Your task to perform on an android device: turn on bluetooth scan Image 0: 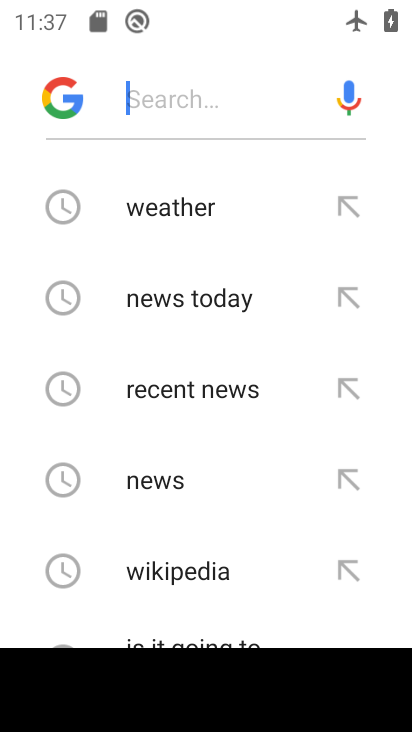
Step 0: press home button
Your task to perform on an android device: turn on bluetooth scan Image 1: 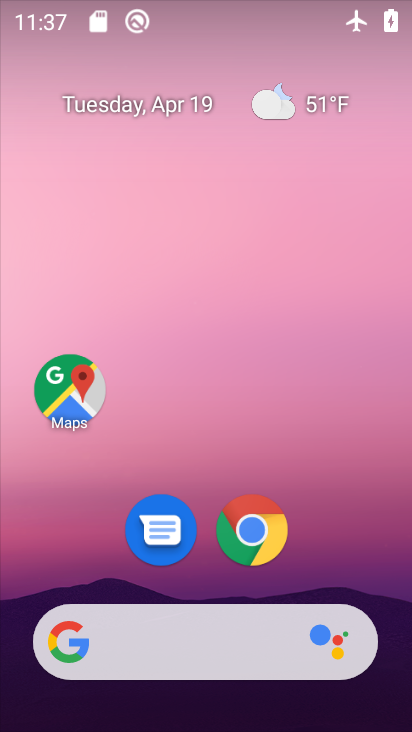
Step 1: drag from (164, 655) to (301, 61)
Your task to perform on an android device: turn on bluetooth scan Image 2: 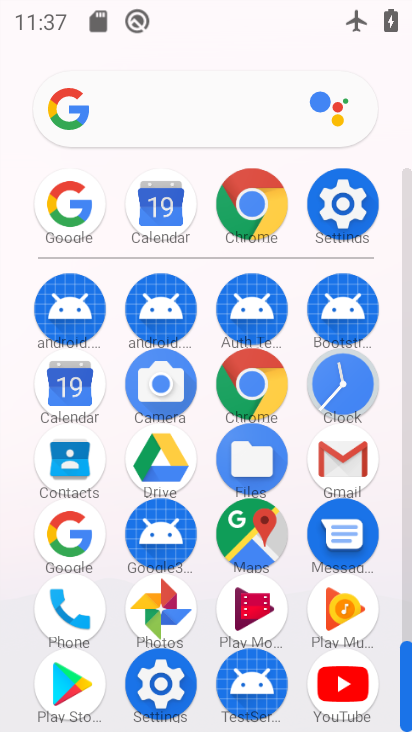
Step 2: click (337, 218)
Your task to perform on an android device: turn on bluetooth scan Image 3: 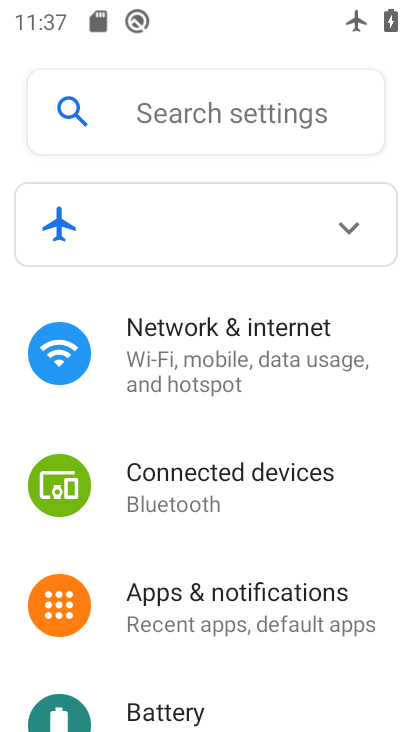
Step 3: drag from (185, 667) to (329, 238)
Your task to perform on an android device: turn on bluetooth scan Image 4: 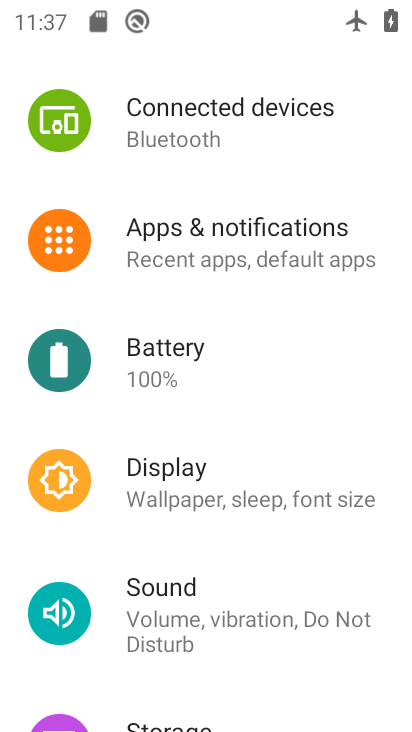
Step 4: drag from (247, 677) to (383, 87)
Your task to perform on an android device: turn on bluetooth scan Image 5: 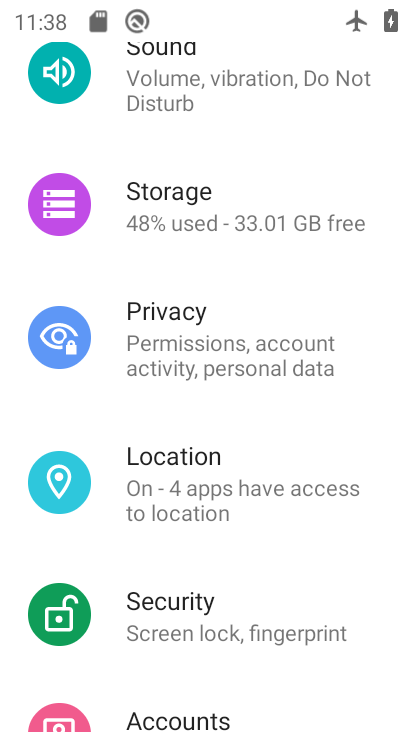
Step 5: click (219, 461)
Your task to perform on an android device: turn on bluetooth scan Image 6: 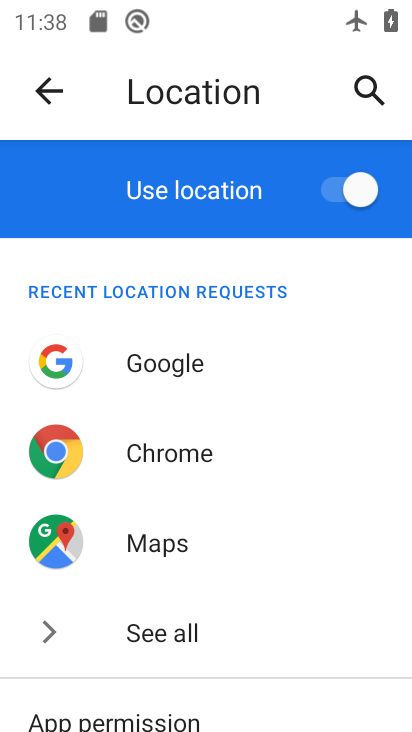
Step 6: drag from (253, 548) to (371, 212)
Your task to perform on an android device: turn on bluetooth scan Image 7: 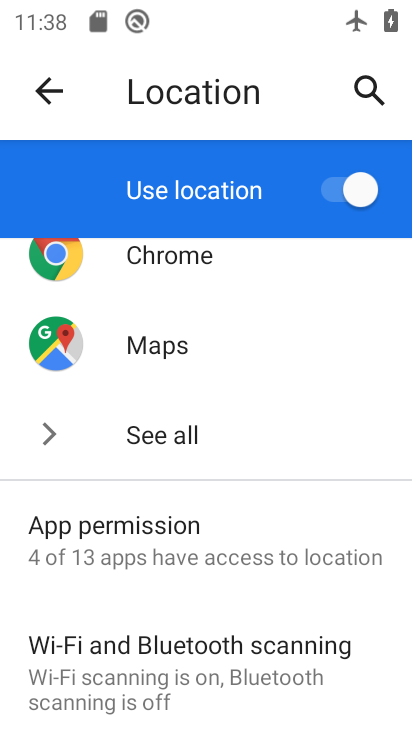
Step 7: drag from (183, 607) to (371, 104)
Your task to perform on an android device: turn on bluetooth scan Image 8: 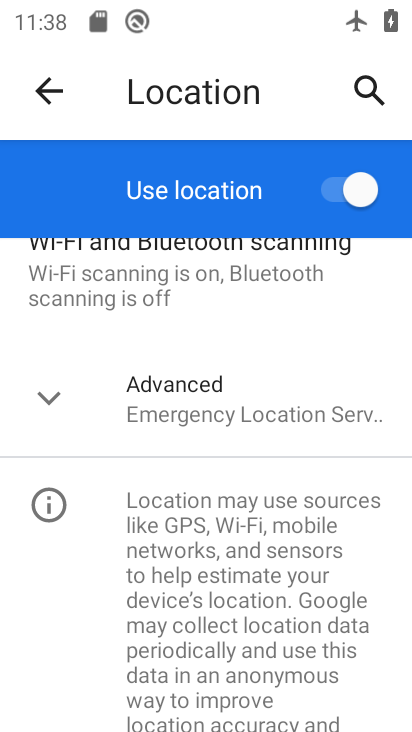
Step 8: click (259, 263)
Your task to perform on an android device: turn on bluetooth scan Image 9: 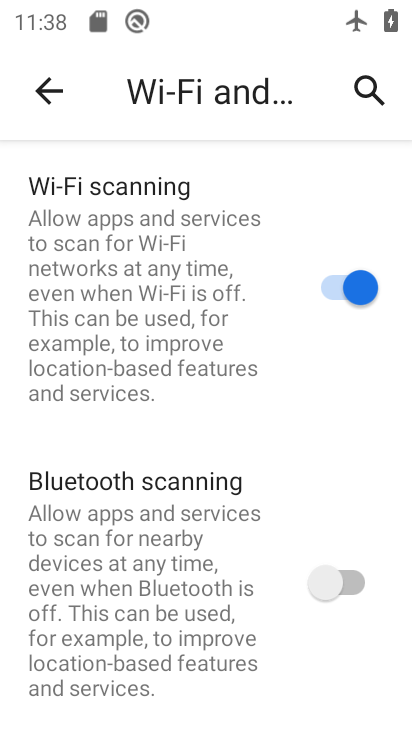
Step 9: drag from (194, 623) to (357, 237)
Your task to perform on an android device: turn on bluetooth scan Image 10: 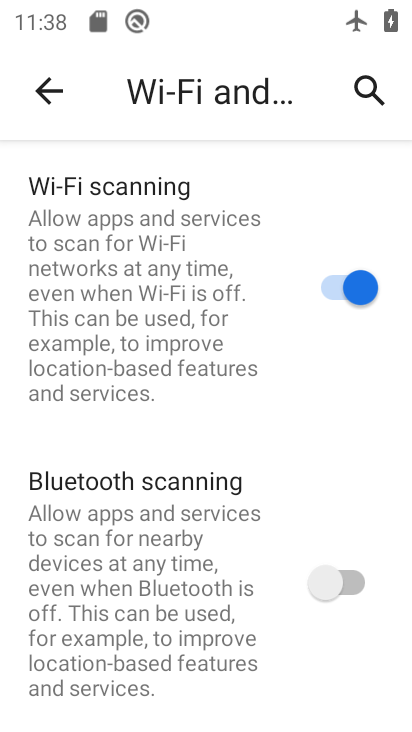
Step 10: click (350, 577)
Your task to perform on an android device: turn on bluetooth scan Image 11: 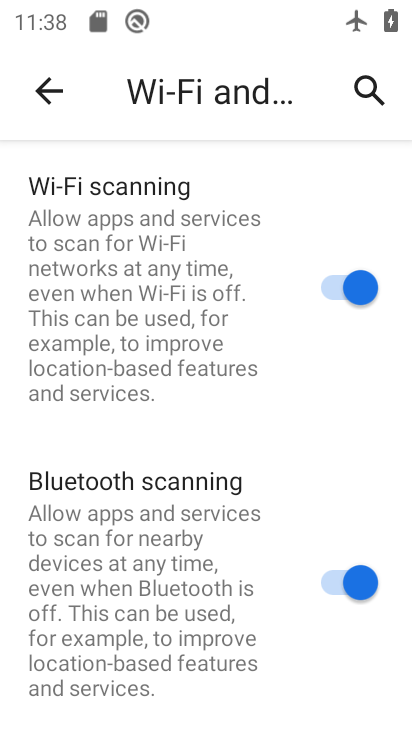
Step 11: task complete